Your task to perform on an android device: turn on location history Image 0: 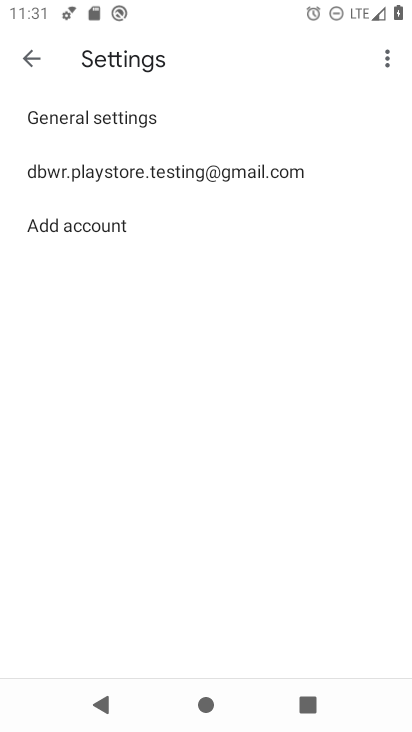
Step 0: press home button
Your task to perform on an android device: turn on location history Image 1: 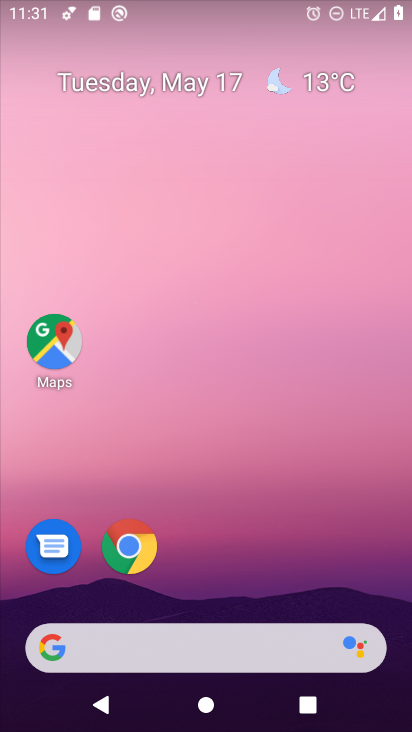
Step 1: click (57, 336)
Your task to perform on an android device: turn on location history Image 2: 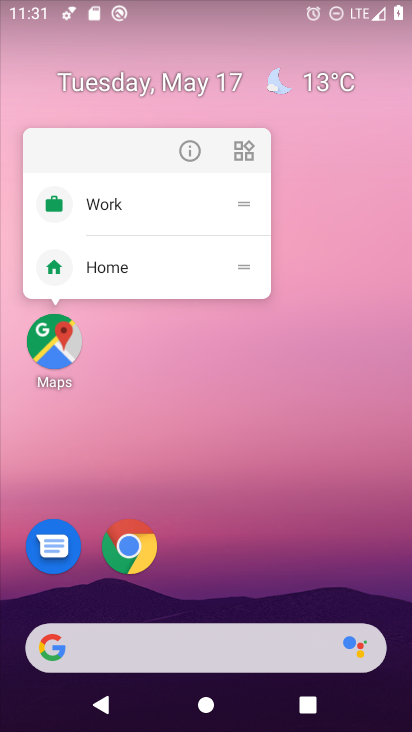
Step 2: click (55, 342)
Your task to perform on an android device: turn on location history Image 3: 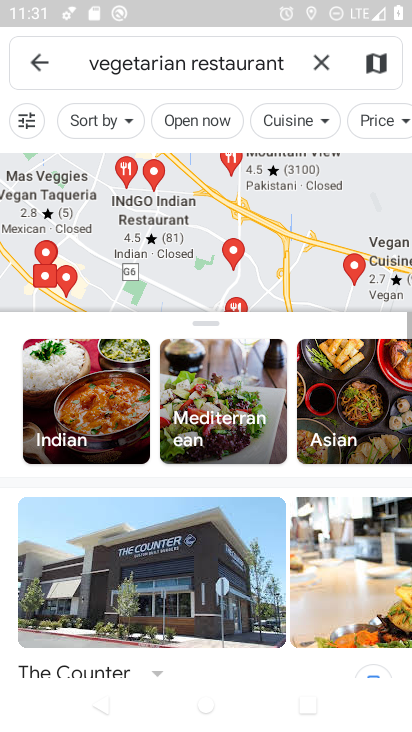
Step 3: click (323, 63)
Your task to perform on an android device: turn on location history Image 4: 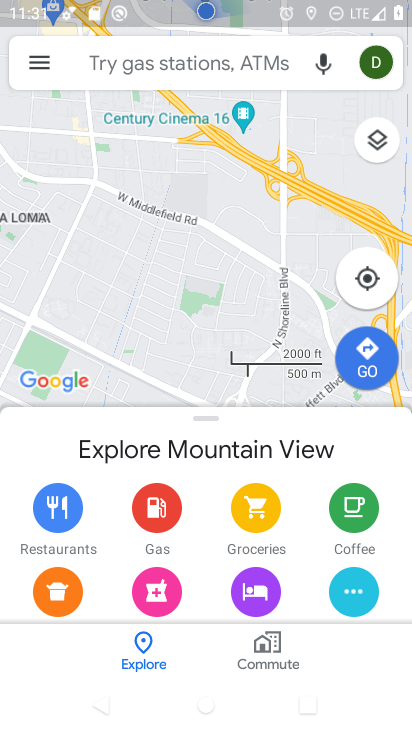
Step 4: click (37, 67)
Your task to perform on an android device: turn on location history Image 5: 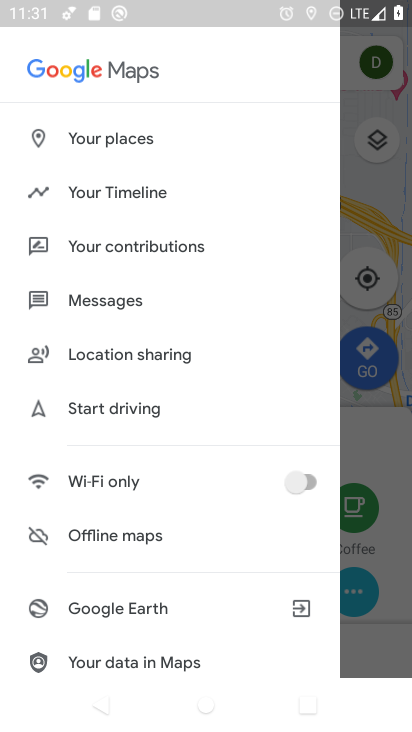
Step 5: click (107, 200)
Your task to perform on an android device: turn on location history Image 6: 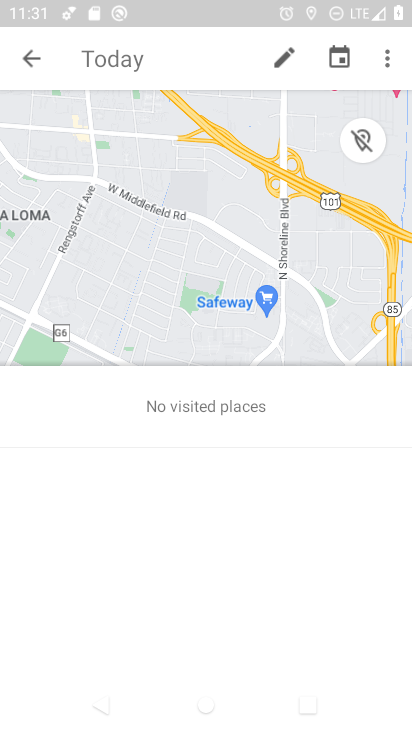
Step 6: click (392, 63)
Your task to perform on an android device: turn on location history Image 7: 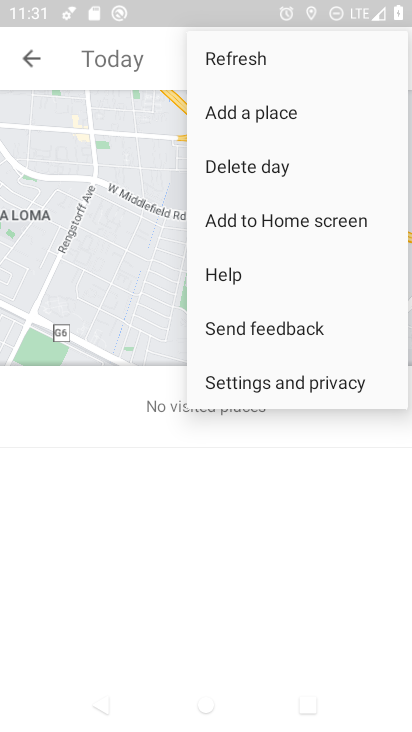
Step 7: click (313, 384)
Your task to perform on an android device: turn on location history Image 8: 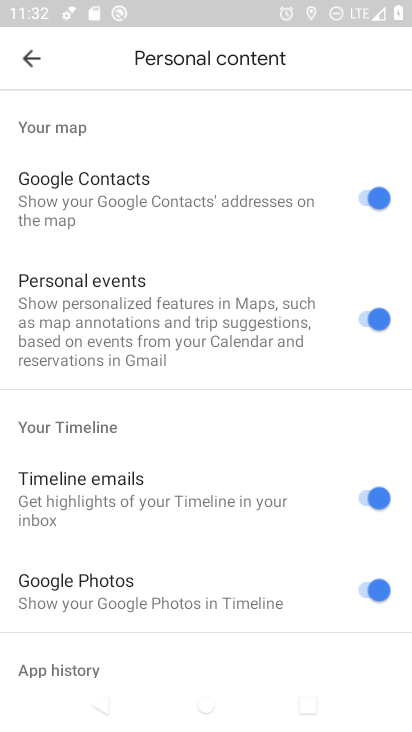
Step 8: drag from (166, 483) to (97, 52)
Your task to perform on an android device: turn on location history Image 9: 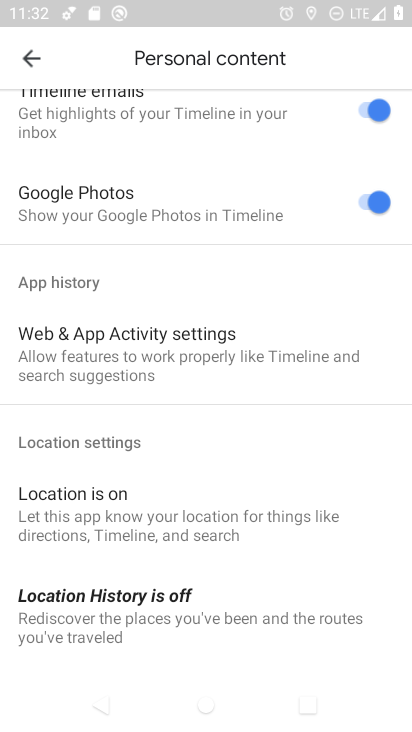
Step 9: drag from (127, 494) to (125, 199)
Your task to perform on an android device: turn on location history Image 10: 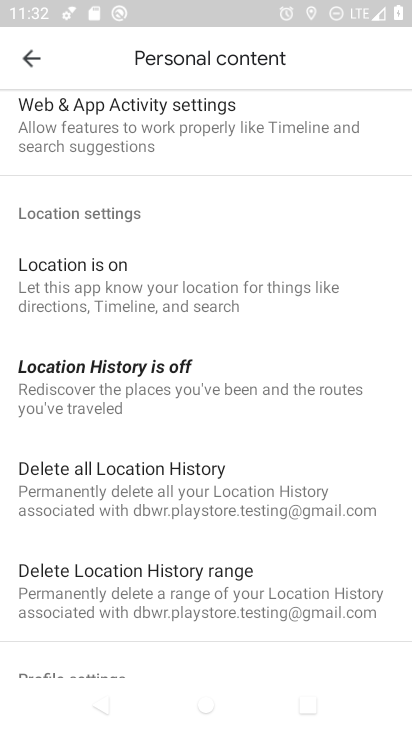
Step 10: click (81, 379)
Your task to perform on an android device: turn on location history Image 11: 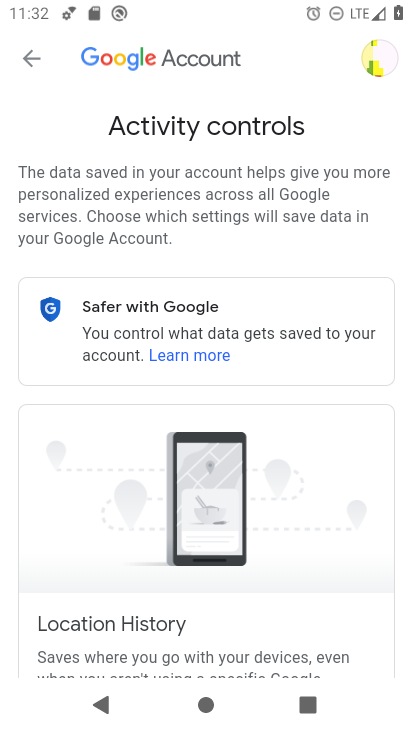
Step 11: drag from (199, 548) to (196, 132)
Your task to perform on an android device: turn on location history Image 12: 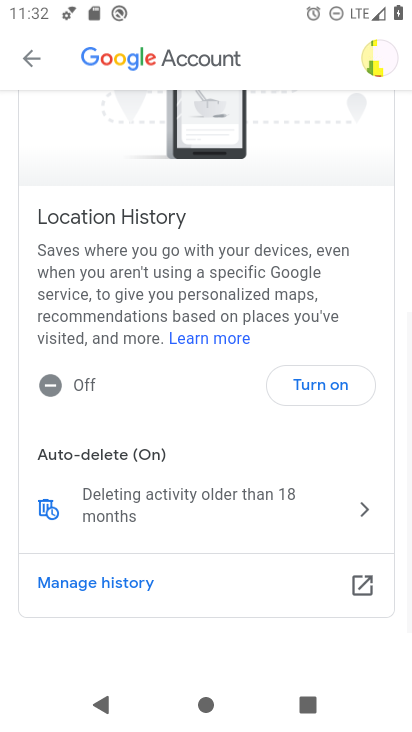
Step 12: drag from (179, 496) to (187, 210)
Your task to perform on an android device: turn on location history Image 13: 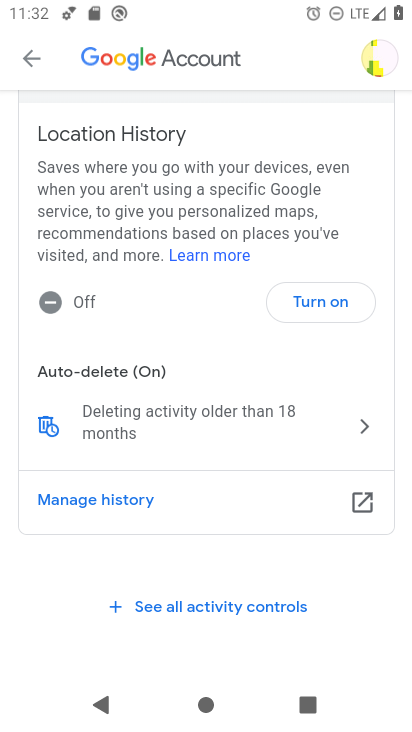
Step 13: click (311, 305)
Your task to perform on an android device: turn on location history Image 14: 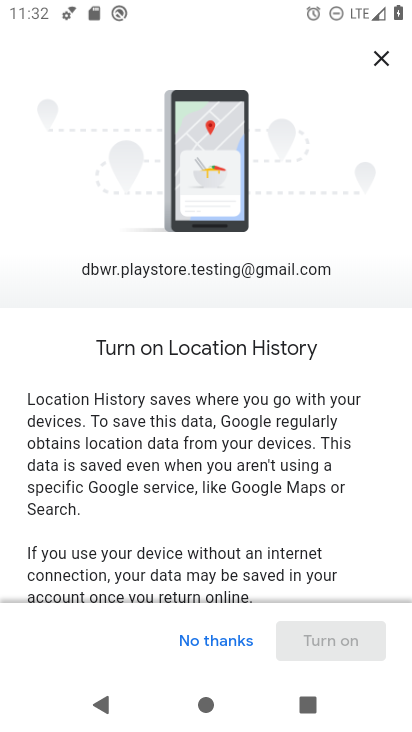
Step 14: drag from (195, 531) to (191, 143)
Your task to perform on an android device: turn on location history Image 15: 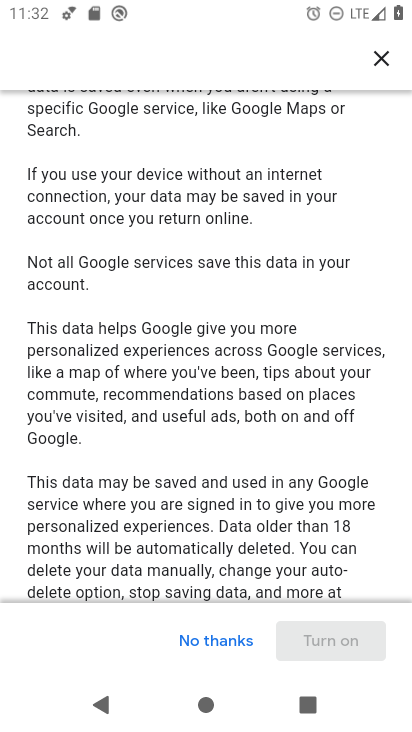
Step 15: drag from (168, 464) to (197, 87)
Your task to perform on an android device: turn on location history Image 16: 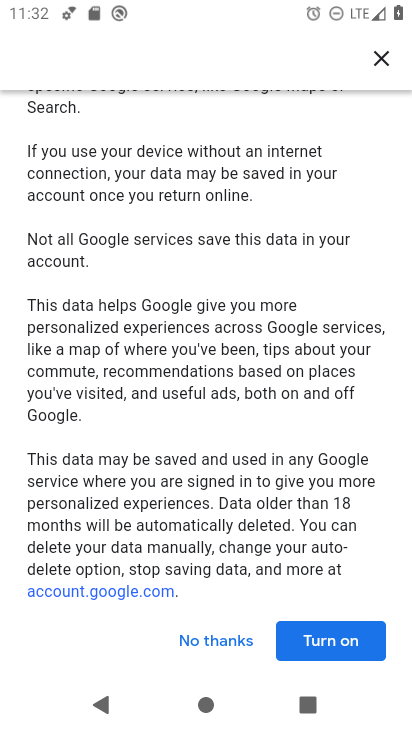
Step 16: click (345, 643)
Your task to perform on an android device: turn on location history Image 17: 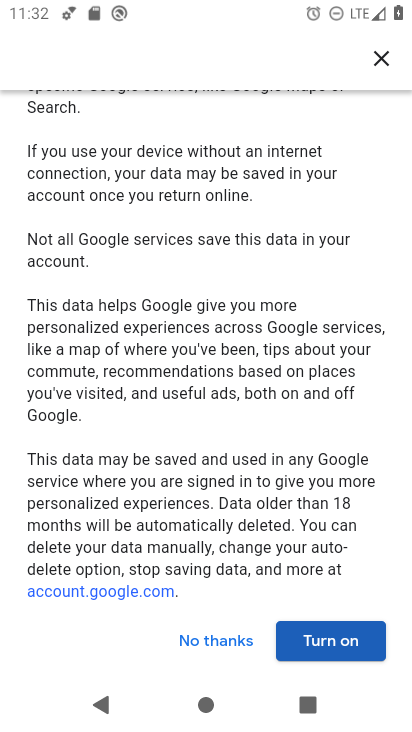
Step 17: click (331, 657)
Your task to perform on an android device: turn on location history Image 18: 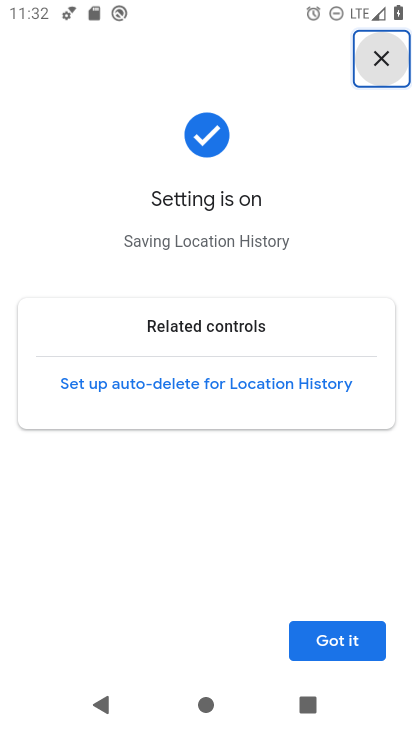
Step 18: click (316, 638)
Your task to perform on an android device: turn on location history Image 19: 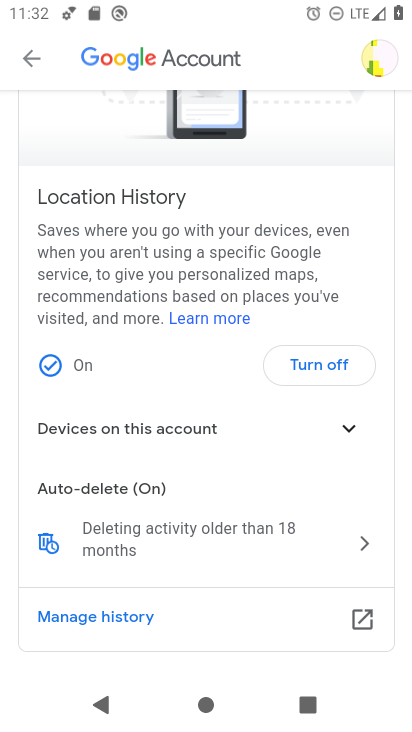
Step 19: task complete